Your task to perform on an android device: When is my next appointment? Image 0: 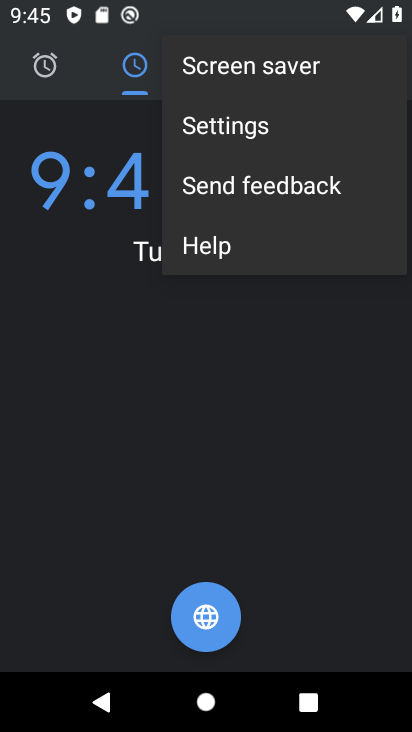
Step 0: press home button
Your task to perform on an android device: When is my next appointment? Image 1: 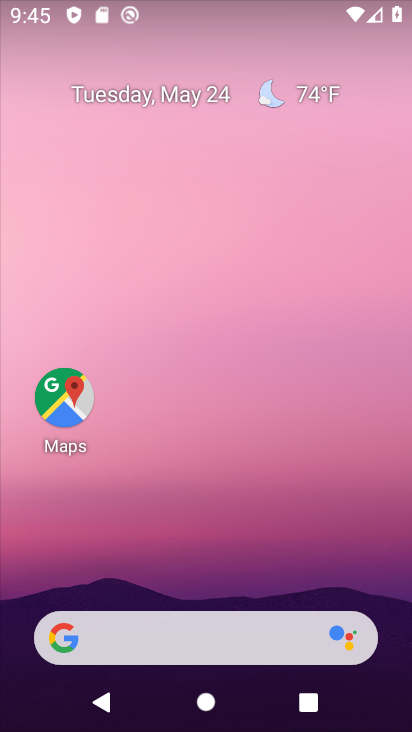
Step 1: drag from (226, 586) to (104, 138)
Your task to perform on an android device: When is my next appointment? Image 2: 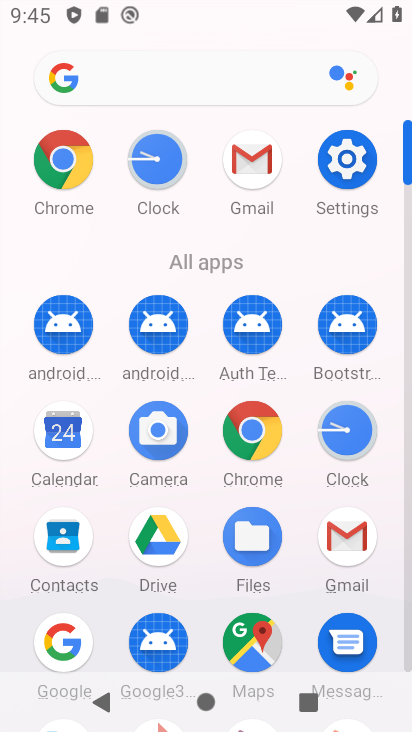
Step 2: click (48, 423)
Your task to perform on an android device: When is my next appointment? Image 3: 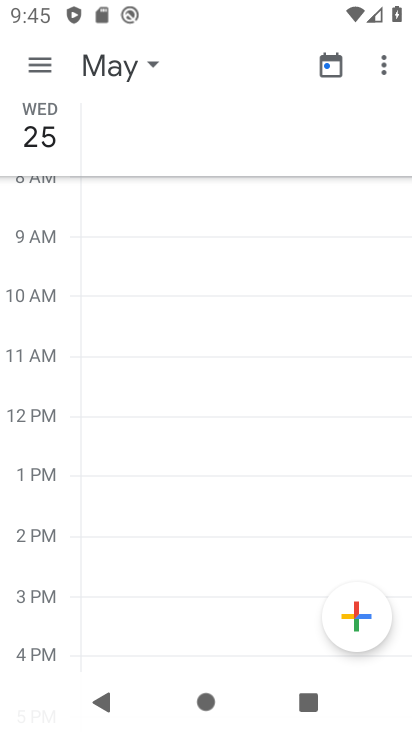
Step 3: click (38, 57)
Your task to perform on an android device: When is my next appointment? Image 4: 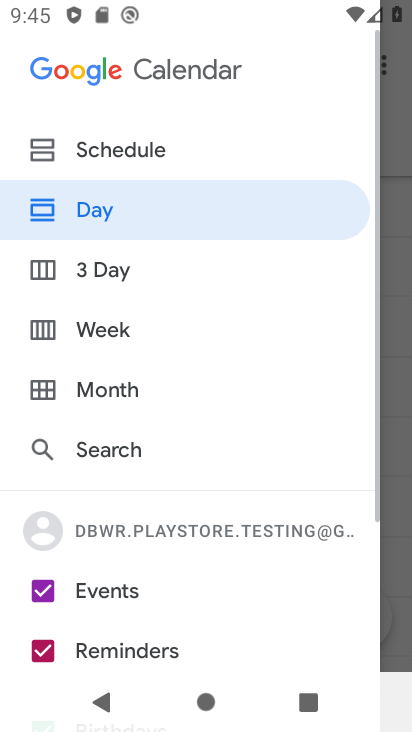
Step 4: click (107, 314)
Your task to perform on an android device: When is my next appointment? Image 5: 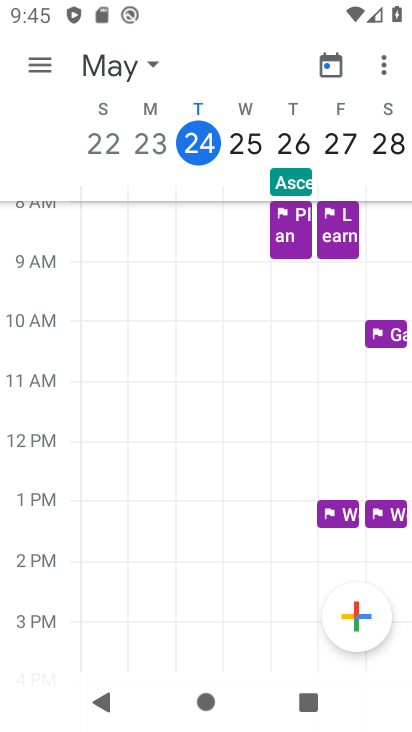
Step 5: task complete